Your task to perform on an android device: search for starred emails in the gmail app Image 0: 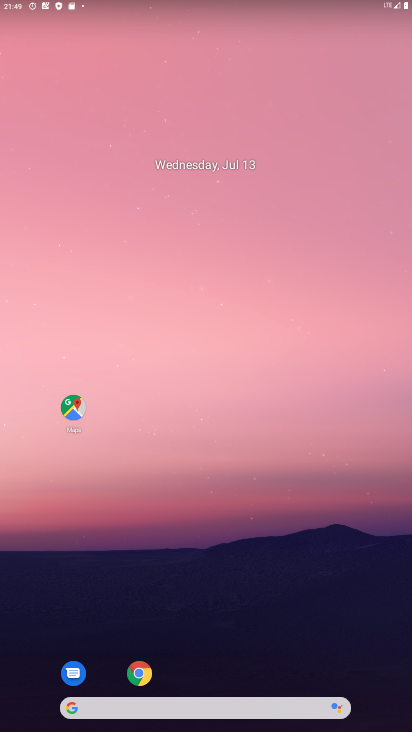
Step 0: drag from (209, 651) to (206, 226)
Your task to perform on an android device: search for starred emails in the gmail app Image 1: 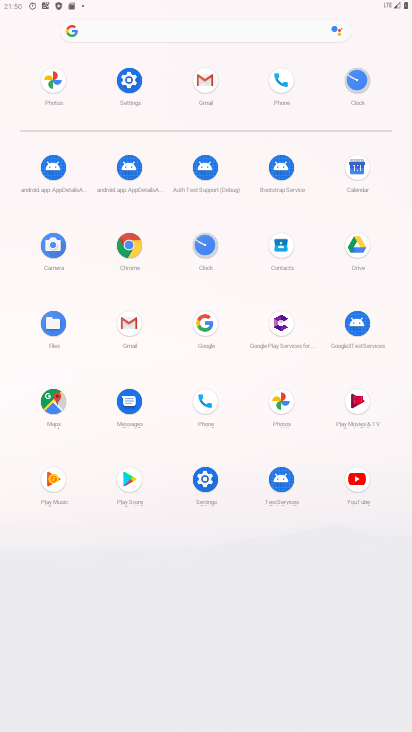
Step 1: click (126, 321)
Your task to perform on an android device: search for starred emails in the gmail app Image 2: 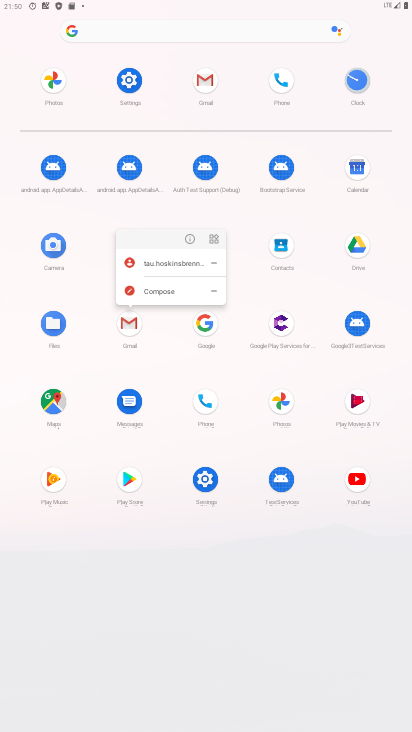
Step 2: click (185, 239)
Your task to perform on an android device: search for starred emails in the gmail app Image 3: 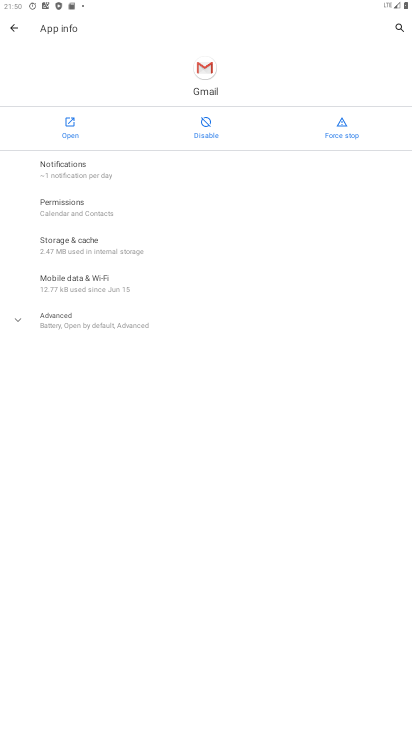
Step 3: click (73, 118)
Your task to perform on an android device: search for starred emails in the gmail app Image 4: 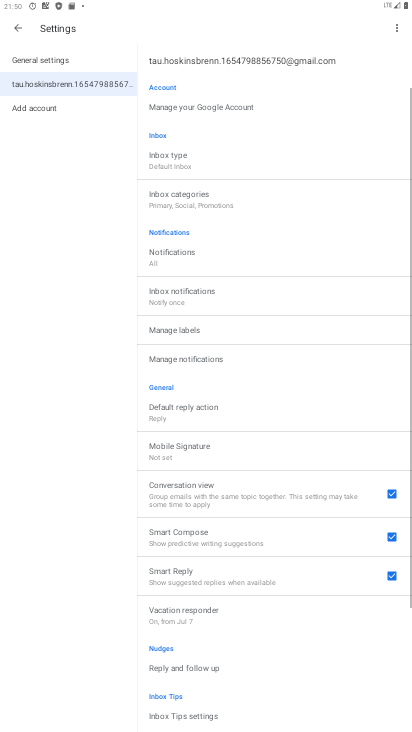
Step 4: drag from (218, 692) to (231, 248)
Your task to perform on an android device: search for starred emails in the gmail app Image 5: 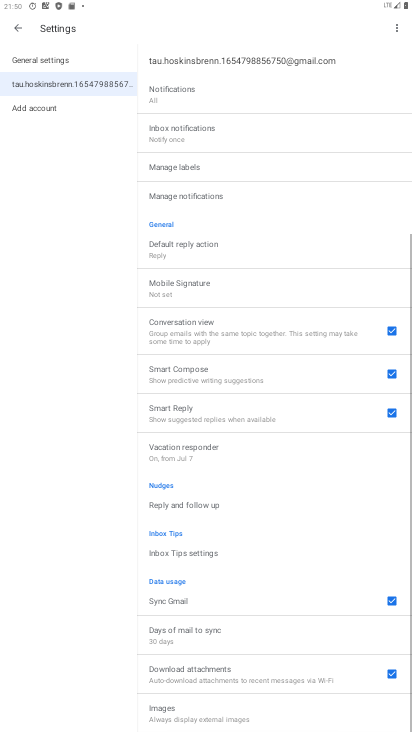
Step 5: drag from (221, 308) to (253, 729)
Your task to perform on an android device: search for starred emails in the gmail app Image 6: 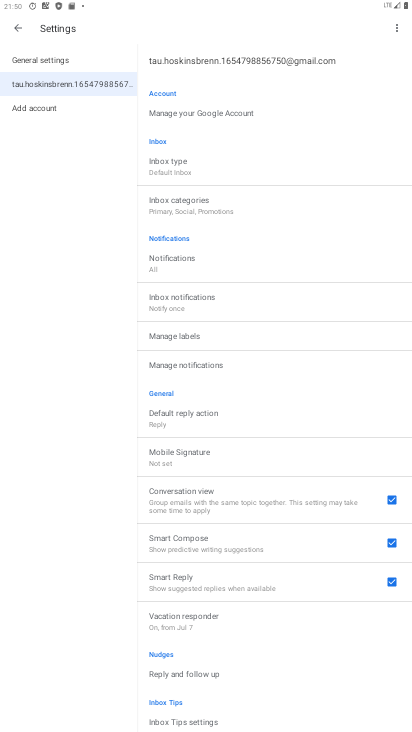
Step 6: click (17, 32)
Your task to perform on an android device: search for starred emails in the gmail app Image 7: 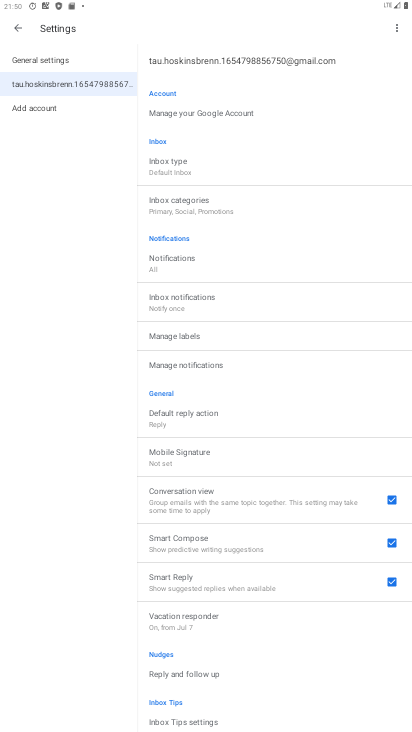
Step 7: click (17, 25)
Your task to perform on an android device: search for starred emails in the gmail app Image 8: 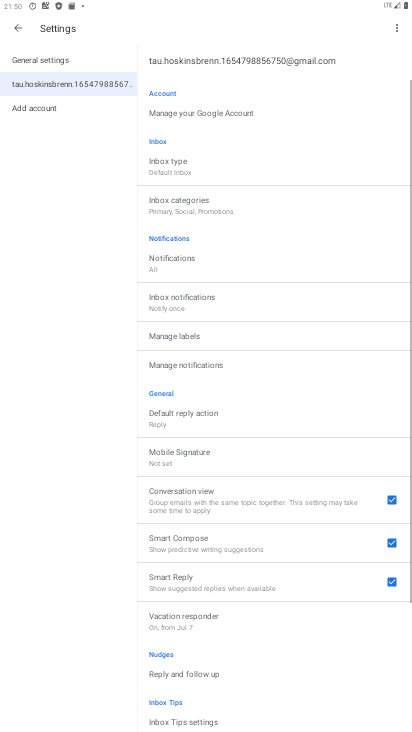
Step 8: click (18, 26)
Your task to perform on an android device: search for starred emails in the gmail app Image 9: 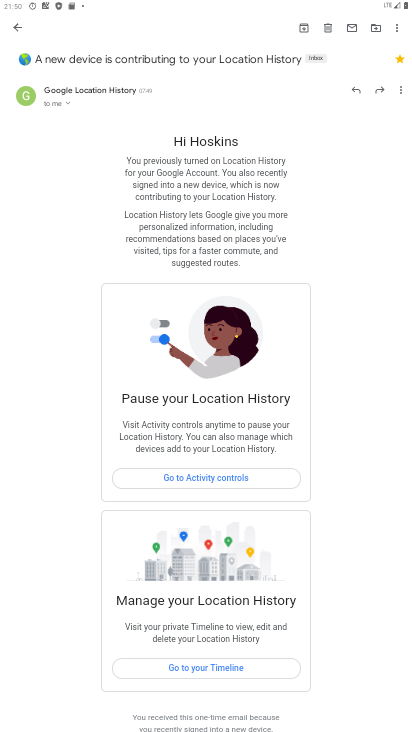
Step 9: click (24, 20)
Your task to perform on an android device: search for starred emails in the gmail app Image 10: 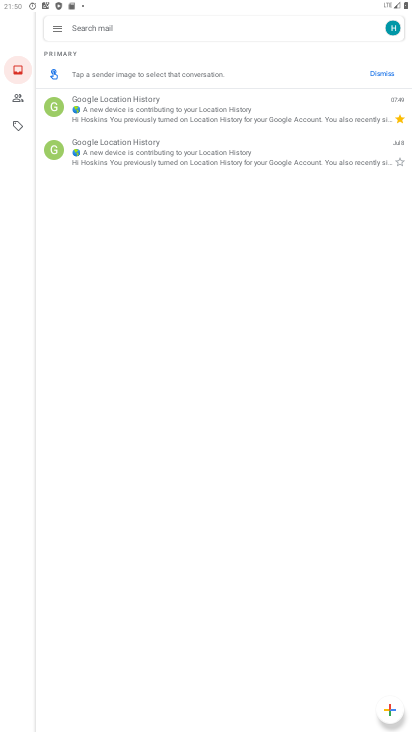
Step 10: click (63, 27)
Your task to perform on an android device: search for starred emails in the gmail app Image 11: 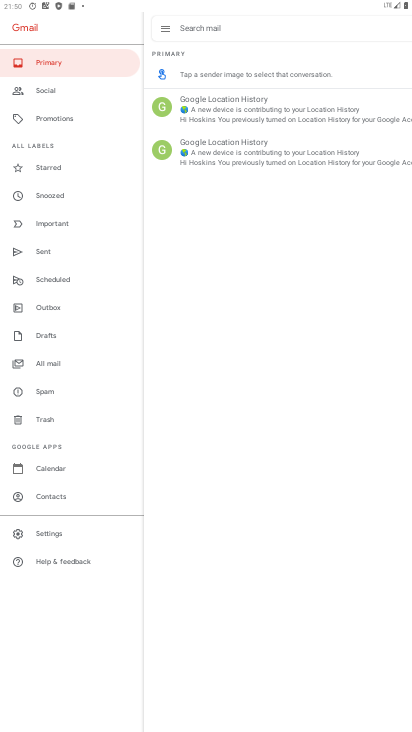
Step 11: click (51, 166)
Your task to perform on an android device: search for starred emails in the gmail app Image 12: 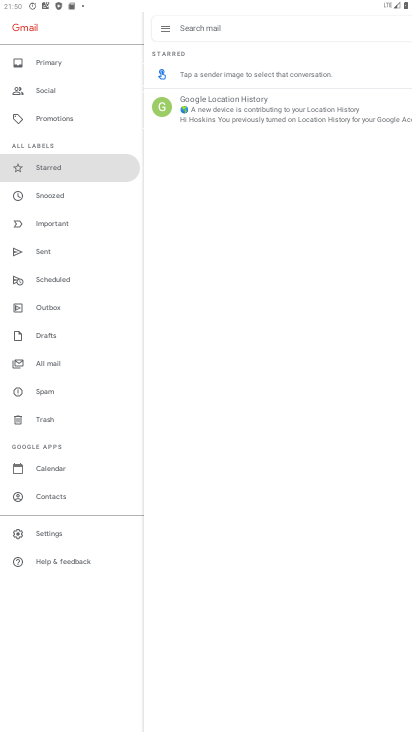
Step 12: click (62, 176)
Your task to perform on an android device: search for starred emails in the gmail app Image 13: 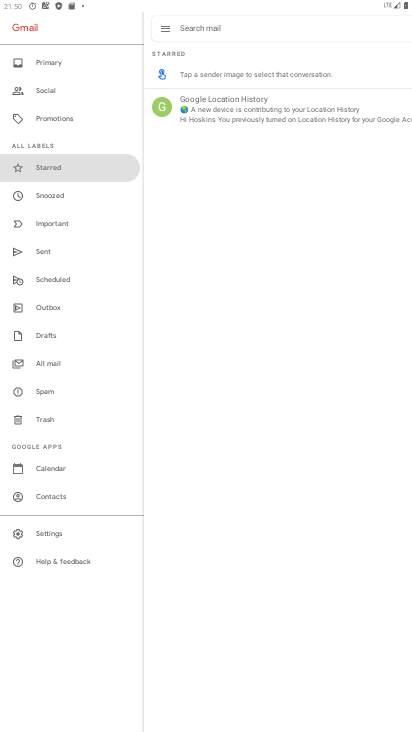
Step 13: drag from (259, 482) to (270, 264)
Your task to perform on an android device: search for starred emails in the gmail app Image 14: 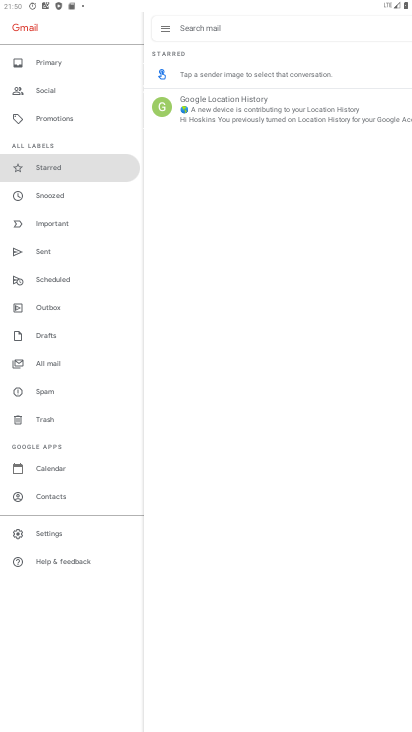
Step 14: drag from (233, 423) to (241, 322)
Your task to perform on an android device: search for starred emails in the gmail app Image 15: 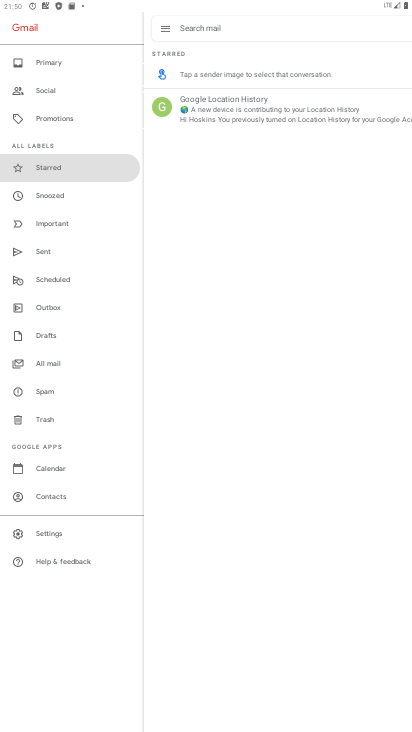
Step 15: click (261, 205)
Your task to perform on an android device: search for starred emails in the gmail app Image 16: 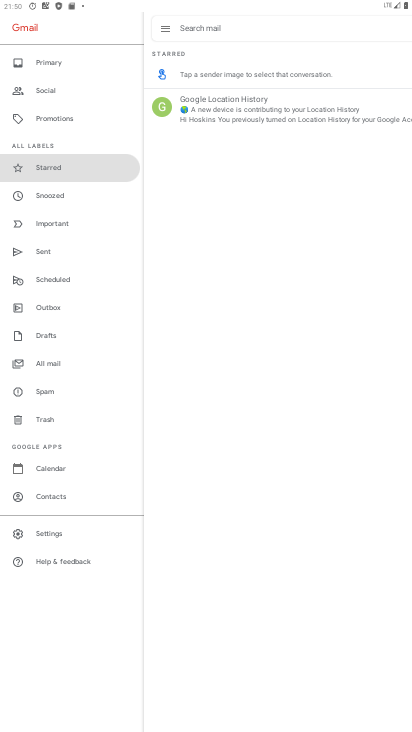
Step 16: drag from (222, 254) to (260, 633)
Your task to perform on an android device: search for starred emails in the gmail app Image 17: 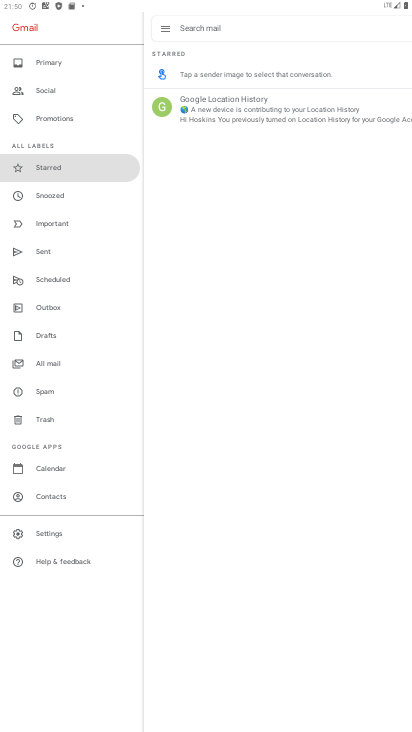
Step 17: drag from (263, 357) to (236, 699)
Your task to perform on an android device: search for starred emails in the gmail app Image 18: 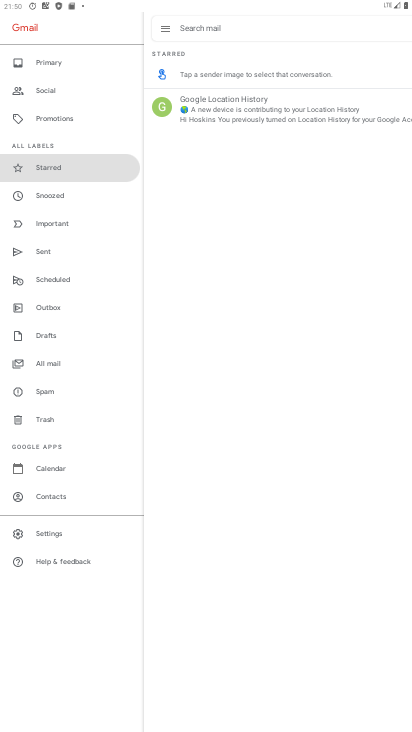
Step 18: click (38, 172)
Your task to perform on an android device: search for starred emails in the gmail app Image 19: 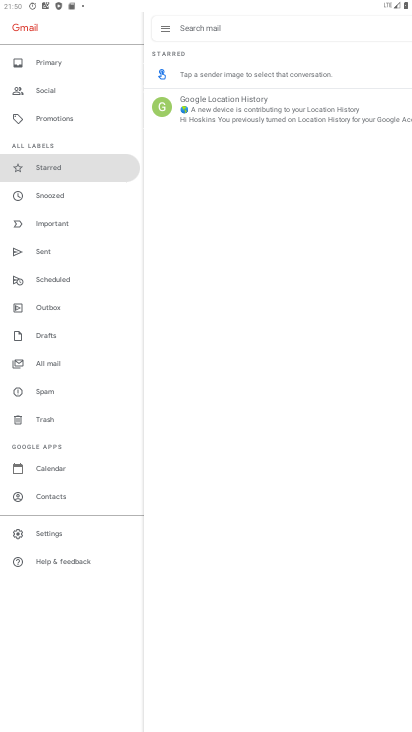
Step 19: task complete